Your task to perform on an android device: Go to Reddit.com Image 0: 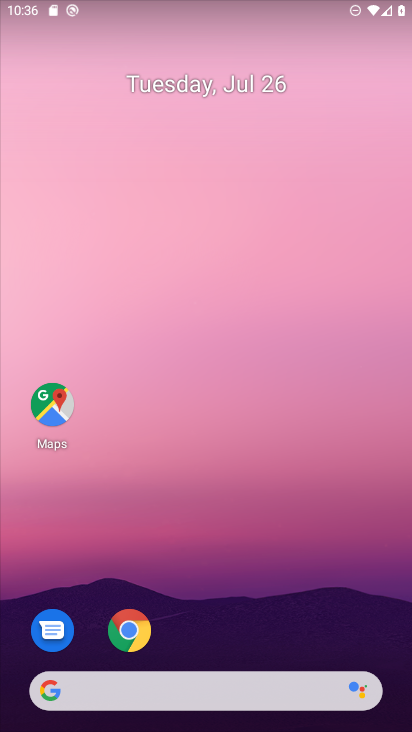
Step 0: click (124, 628)
Your task to perform on an android device: Go to Reddit.com Image 1: 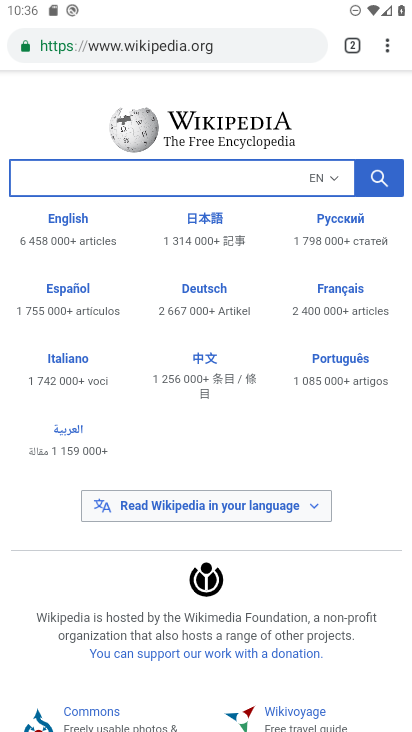
Step 1: click (228, 48)
Your task to perform on an android device: Go to Reddit.com Image 2: 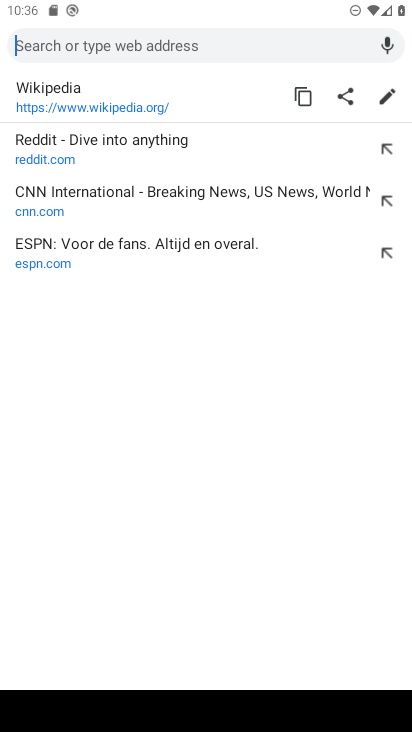
Step 2: type "reddit.com"
Your task to perform on an android device: Go to Reddit.com Image 3: 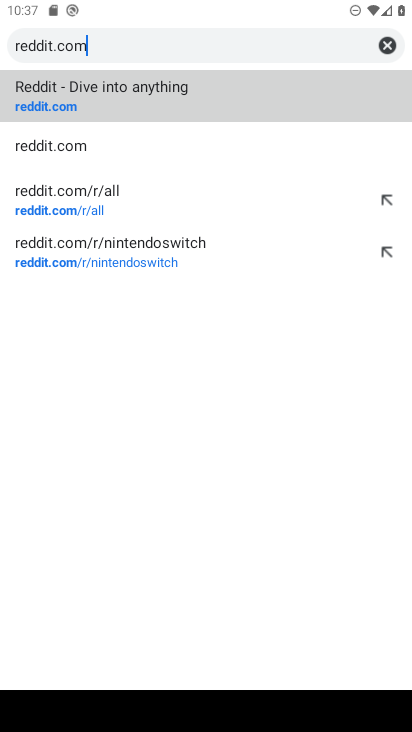
Step 3: click (98, 92)
Your task to perform on an android device: Go to Reddit.com Image 4: 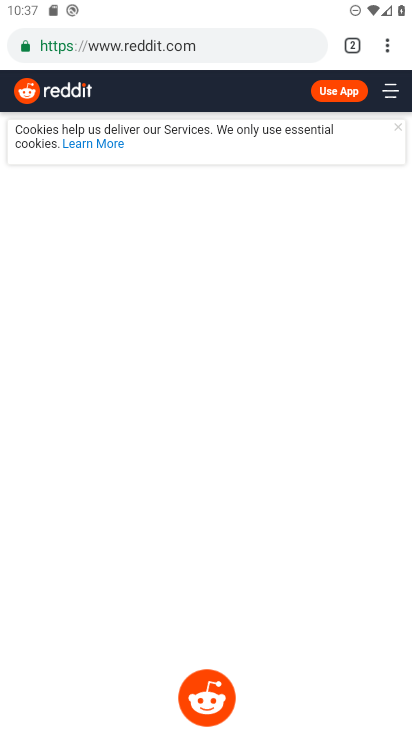
Step 4: task complete